Your task to perform on an android device: turn off sleep mode Image 0: 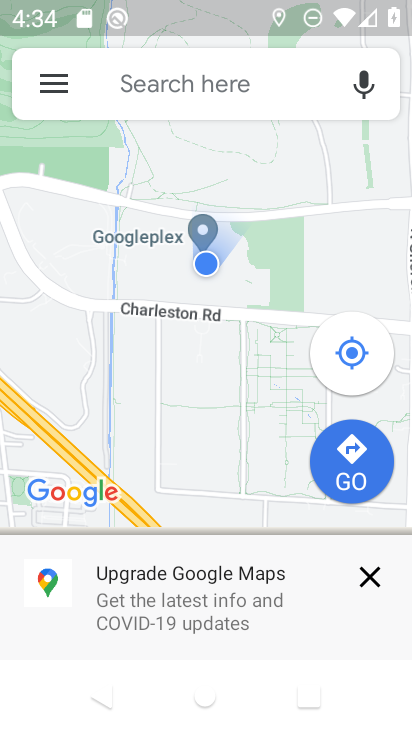
Step 0: press home button
Your task to perform on an android device: turn off sleep mode Image 1: 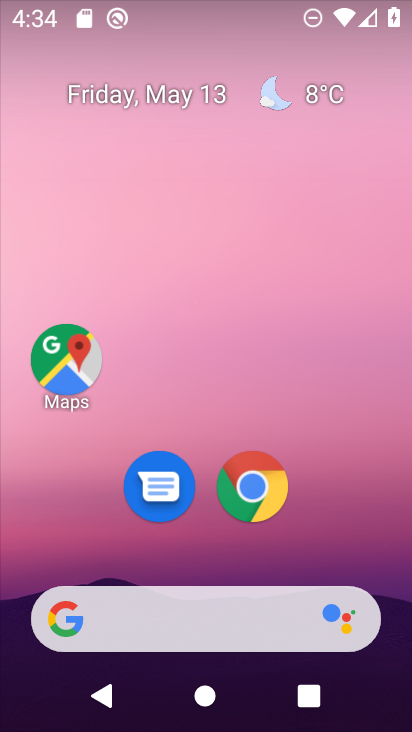
Step 1: drag from (322, 531) to (359, 108)
Your task to perform on an android device: turn off sleep mode Image 2: 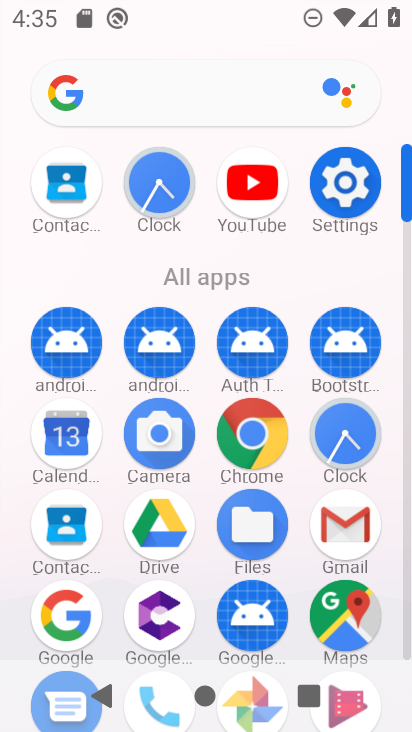
Step 2: click (331, 213)
Your task to perform on an android device: turn off sleep mode Image 3: 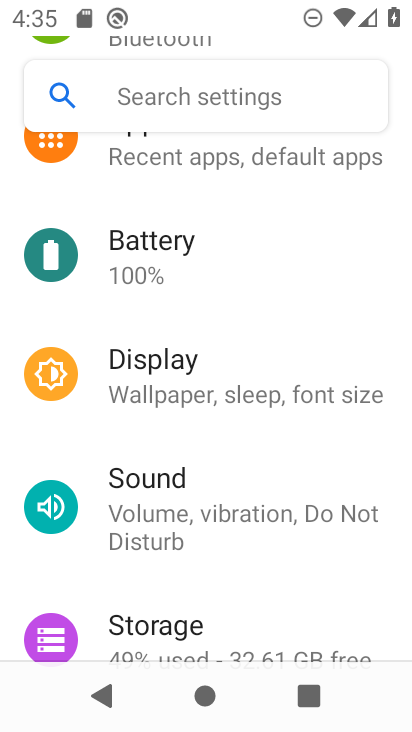
Step 3: drag from (259, 269) to (244, 358)
Your task to perform on an android device: turn off sleep mode Image 4: 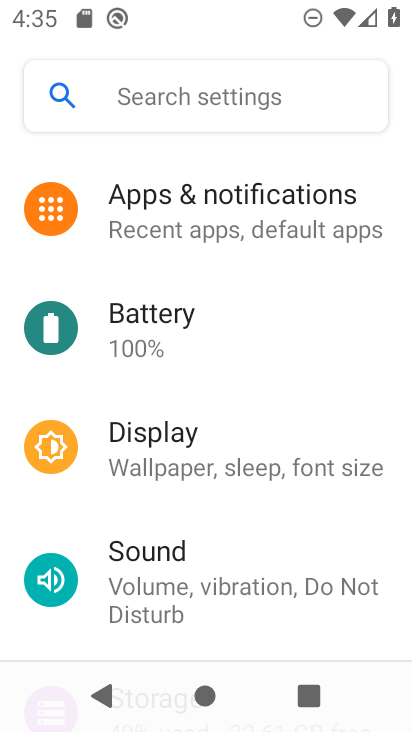
Step 4: click (230, 464)
Your task to perform on an android device: turn off sleep mode Image 5: 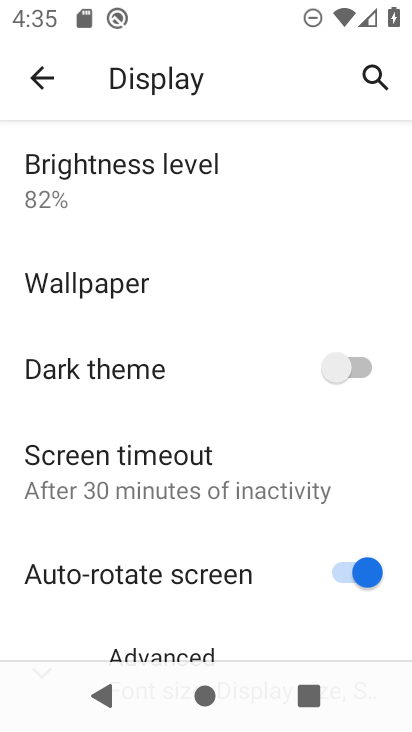
Step 5: click (204, 440)
Your task to perform on an android device: turn off sleep mode Image 6: 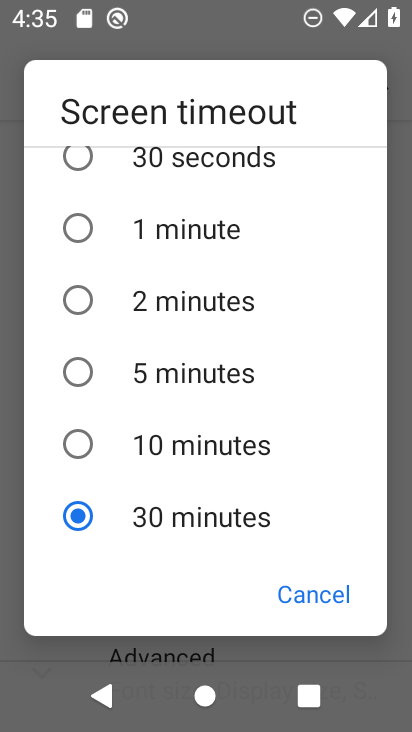
Step 6: task complete